Your task to perform on an android device: Open Youtube and go to "Your channel" Image 0: 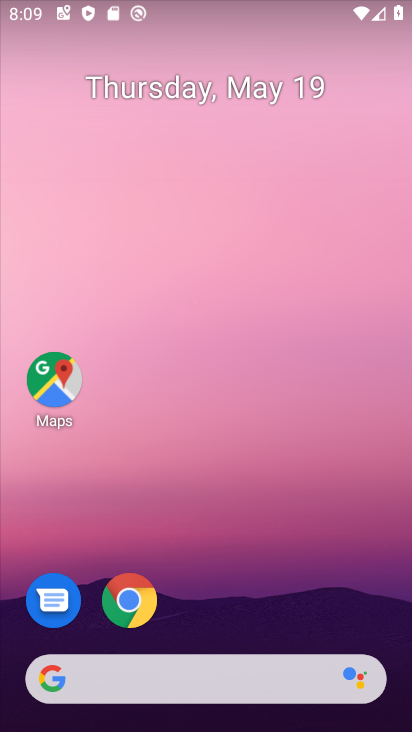
Step 0: drag from (277, 627) to (263, 35)
Your task to perform on an android device: Open Youtube and go to "Your channel" Image 1: 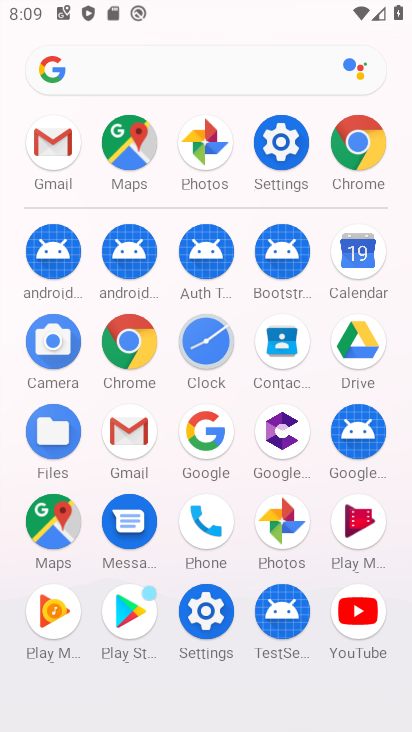
Step 1: click (360, 619)
Your task to perform on an android device: Open Youtube and go to "Your channel" Image 2: 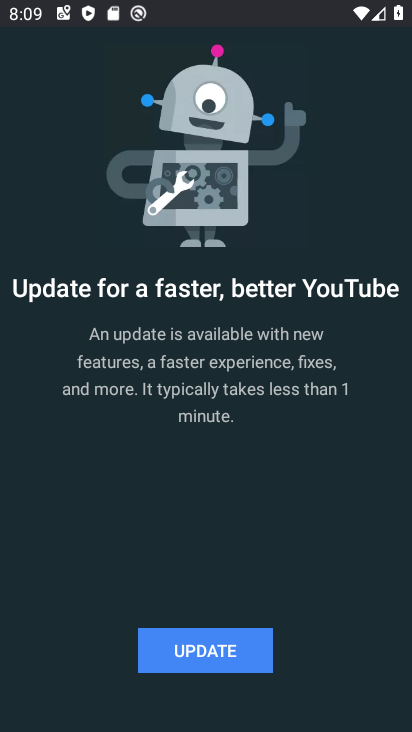
Step 2: click (226, 662)
Your task to perform on an android device: Open Youtube and go to "Your channel" Image 3: 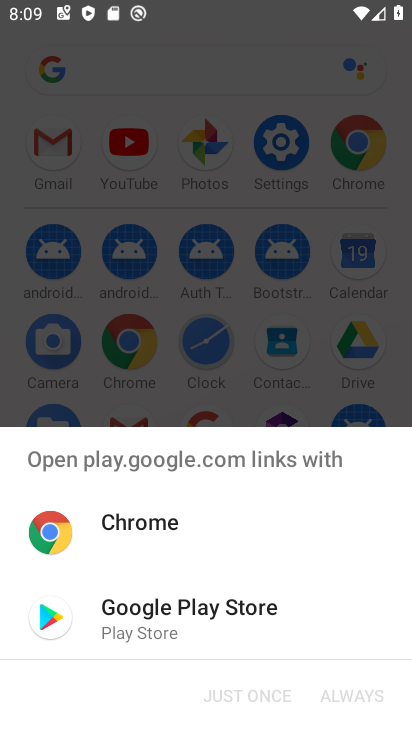
Step 3: click (134, 622)
Your task to perform on an android device: Open Youtube and go to "Your channel" Image 4: 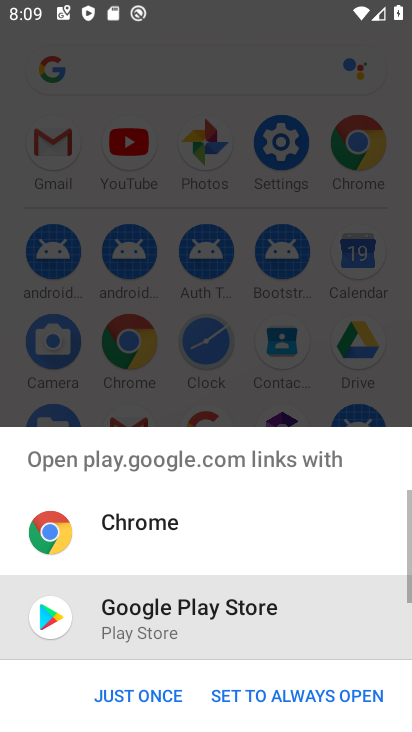
Step 4: click (149, 692)
Your task to perform on an android device: Open Youtube and go to "Your channel" Image 5: 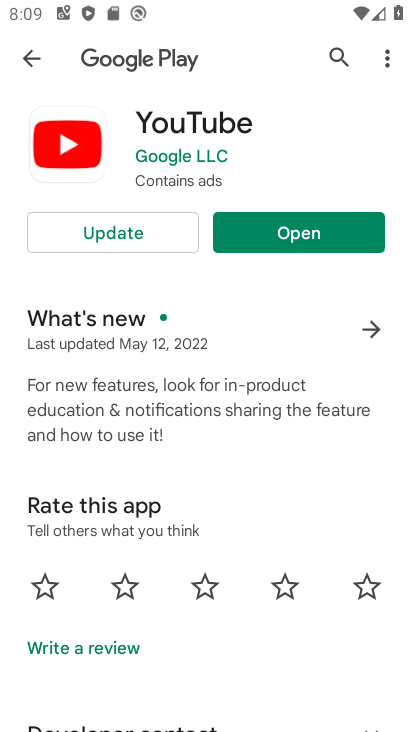
Step 5: click (164, 227)
Your task to perform on an android device: Open Youtube and go to "Your channel" Image 6: 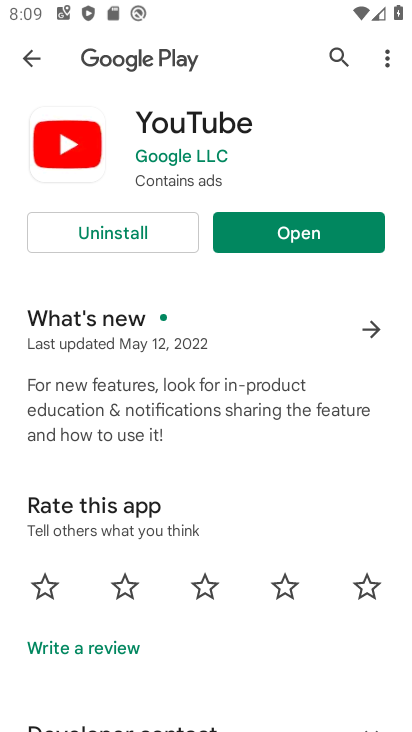
Step 6: click (276, 230)
Your task to perform on an android device: Open Youtube and go to "Your channel" Image 7: 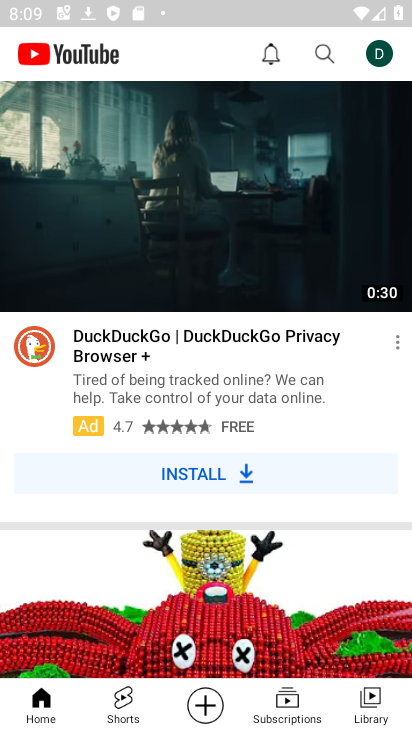
Step 7: click (380, 60)
Your task to perform on an android device: Open Youtube and go to "Your channel" Image 8: 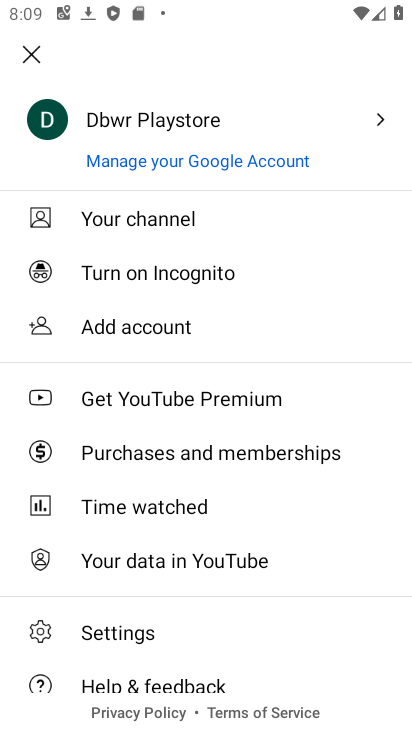
Step 8: click (169, 230)
Your task to perform on an android device: Open Youtube and go to "Your channel" Image 9: 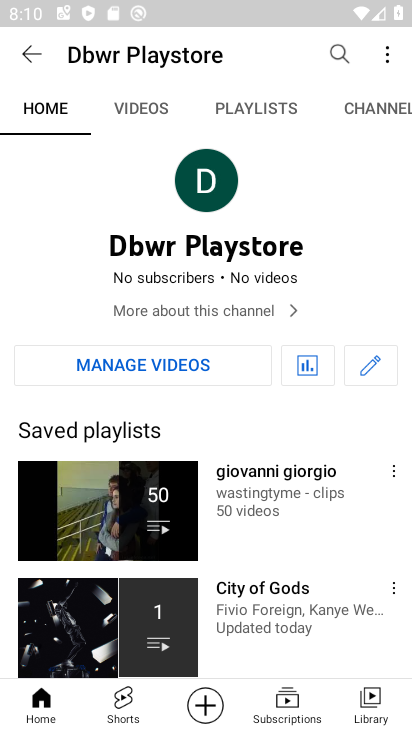
Step 9: task complete